Your task to perform on an android device: check out phone information Image 0: 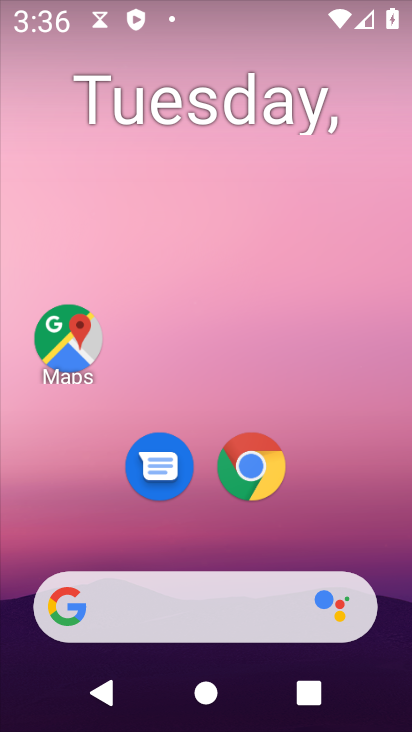
Step 0: drag from (395, 628) to (245, 16)
Your task to perform on an android device: check out phone information Image 1: 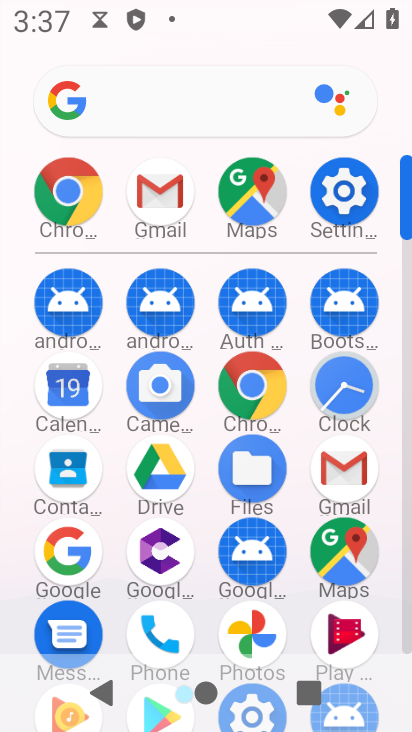
Step 1: drag from (7, 545) to (0, 229)
Your task to perform on an android device: check out phone information Image 2: 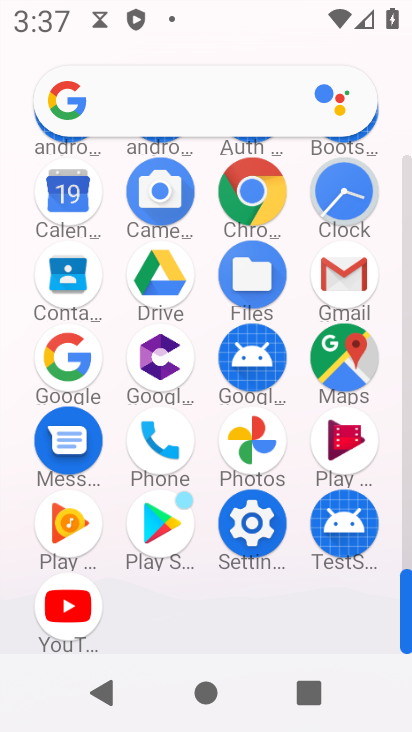
Step 2: click (251, 523)
Your task to perform on an android device: check out phone information Image 3: 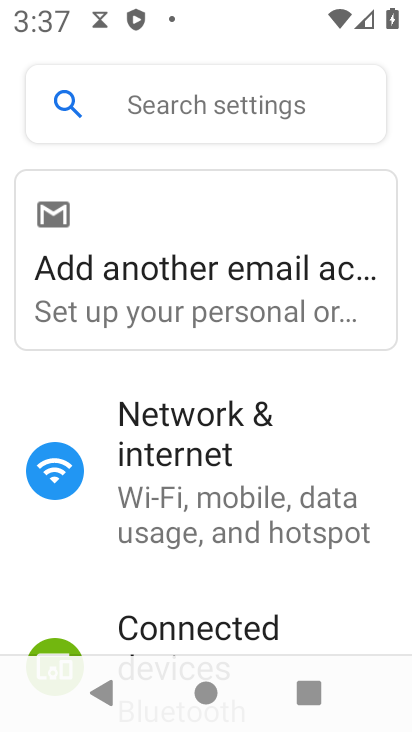
Step 3: drag from (228, 347) to (211, 102)
Your task to perform on an android device: check out phone information Image 4: 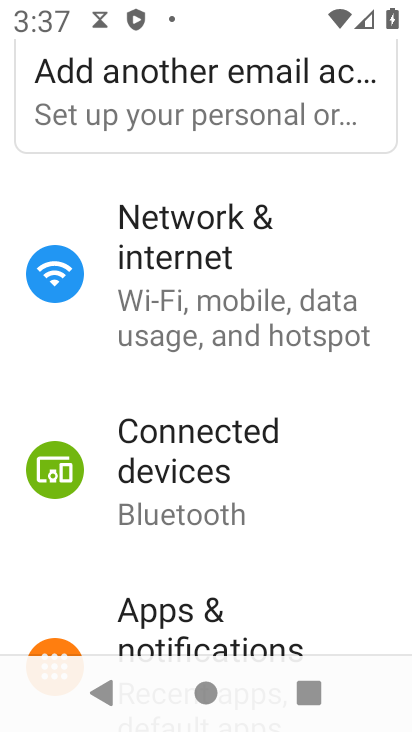
Step 4: drag from (367, 522) to (301, 104)
Your task to perform on an android device: check out phone information Image 5: 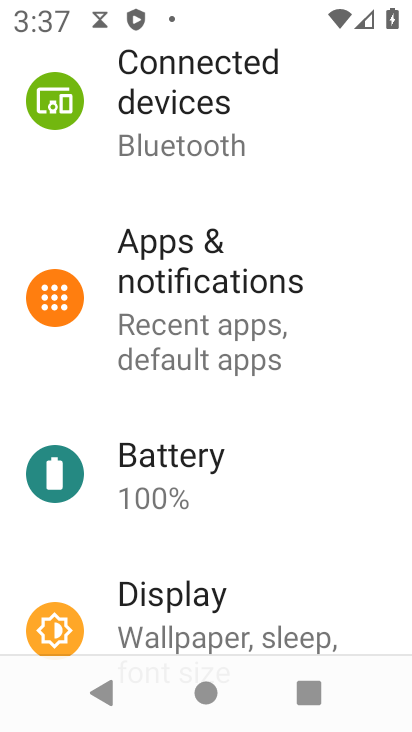
Step 5: drag from (314, 476) to (269, 98)
Your task to perform on an android device: check out phone information Image 6: 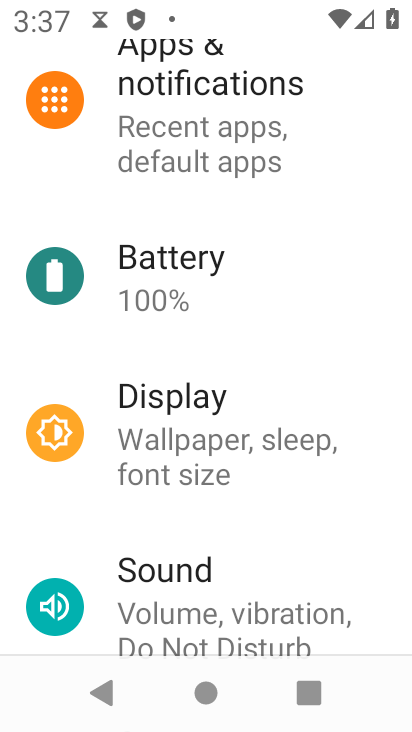
Step 6: drag from (235, 564) to (247, 216)
Your task to perform on an android device: check out phone information Image 7: 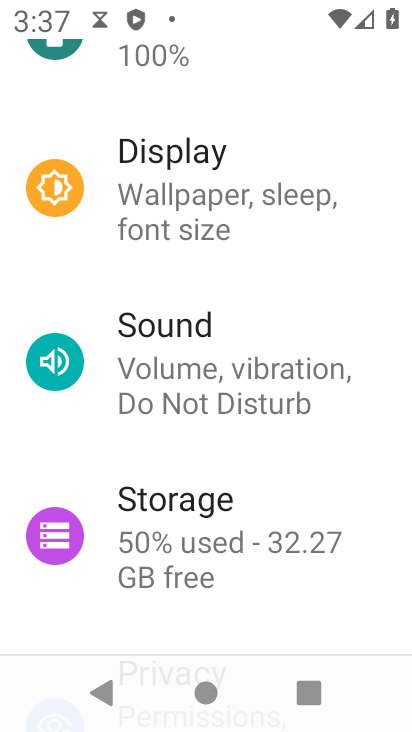
Step 7: drag from (339, 541) to (334, 93)
Your task to perform on an android device: check out phone information Image 8: 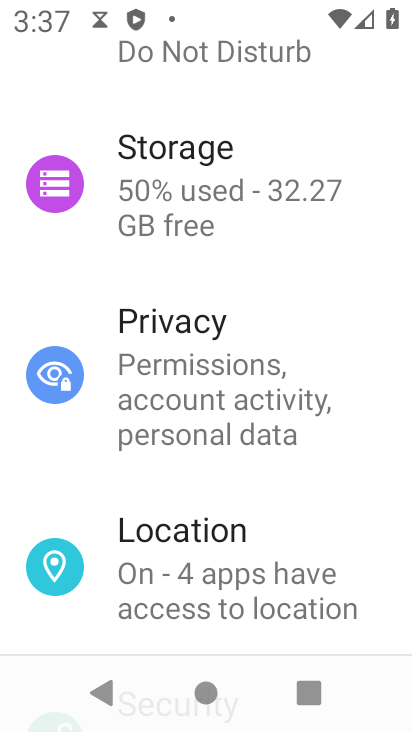
Step 8: drag from (305, 615) to (283, 172)
Your task to perform on an android device: check out phone information Image 9: 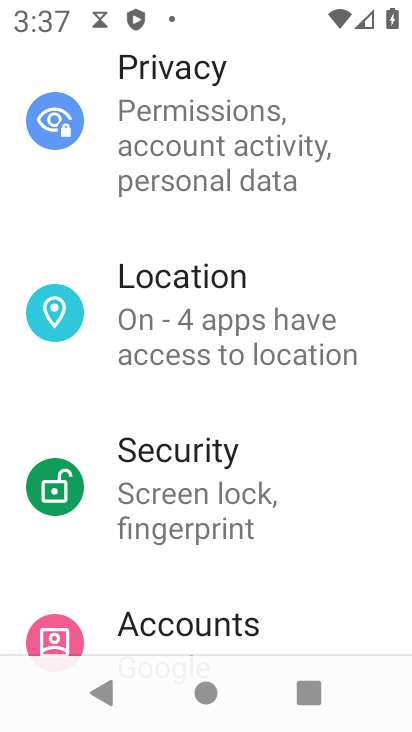
Step 9: drag from (293, 608) to (297, 177)
Your task to perform on an android device: check out phone information Image 10: 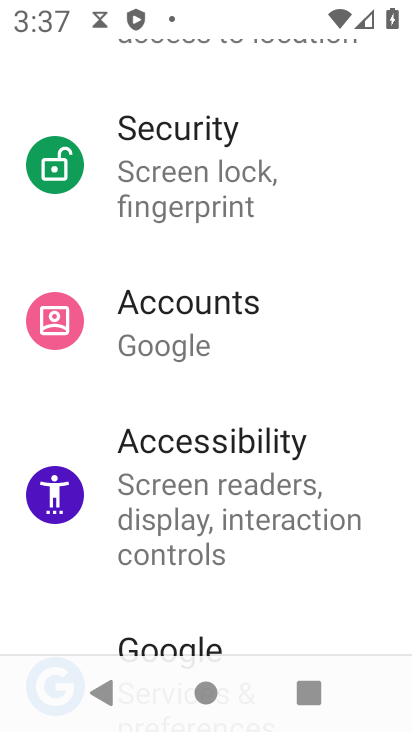
Step 10: drag from (276, 431) to (261, 74)
Your task to perform on an android device: check out phone information Image 11: 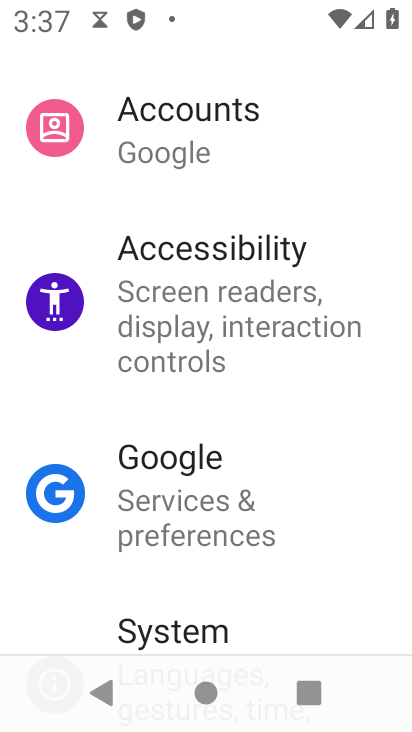
Step 11: drag from (278, 485) to (266, 113)
Your task to perform on an android device: check out phone information Image 12: 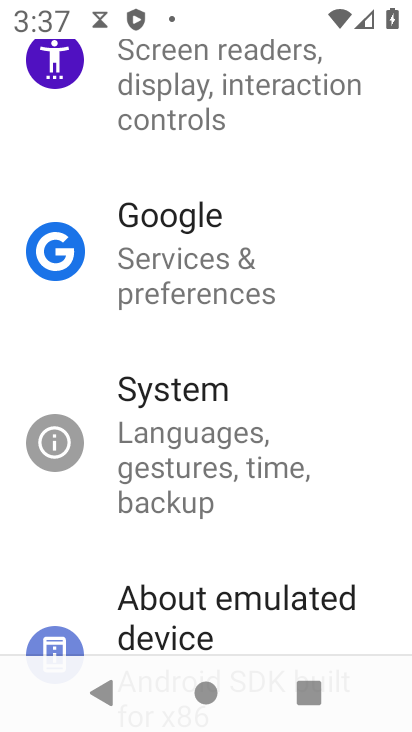
Step 12: drag from (280, 454) to (279, 142)
Your task to perform on an android device: check out phone information Image 13: 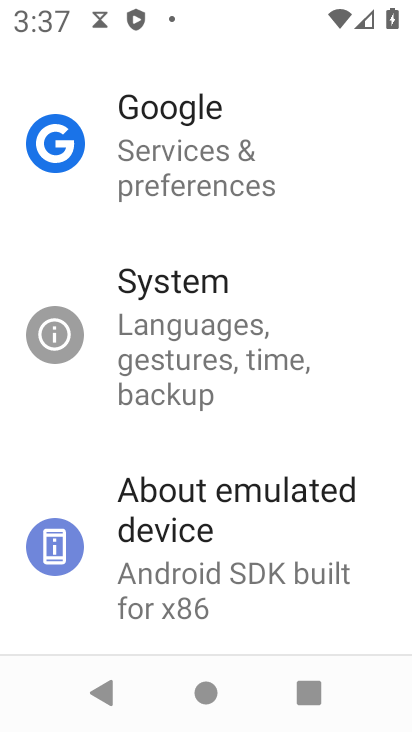
Step 13: click (263, 514)
Your task to perform on an android device: check out phone information Image 14: 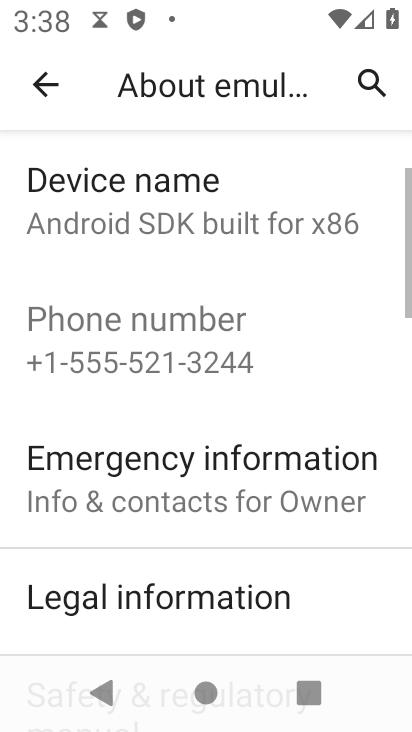
Step 14: drag from (270, 494) to (268, 140)
Your task to perform on an android device: check out phone information Image 15: 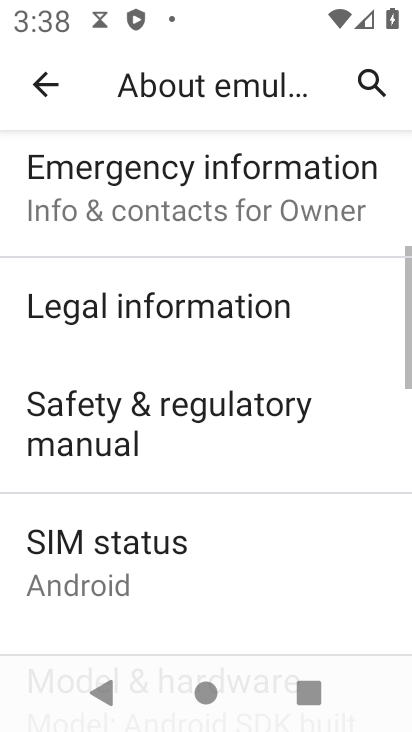
Step 15: drag from (286, 416) to (271, 170)
Your task to perform on an android device: check out phone information Image 16: 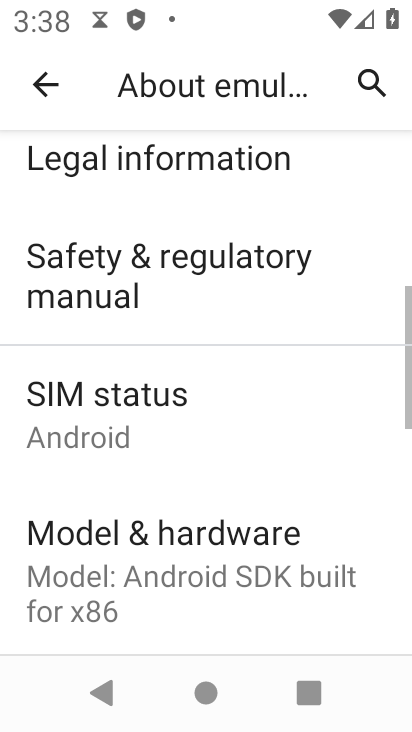
Step 16: drag from (266, 521) to (261, 142)
Your task to perform on an android device: check out phone information Image 17: 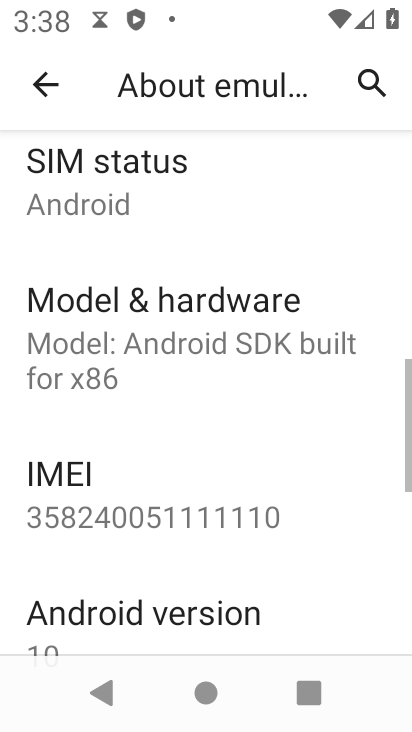
Step 17: drag from (268, 444) to (267, 182)
Your task to perform on an android device: check out phone information Image 18: 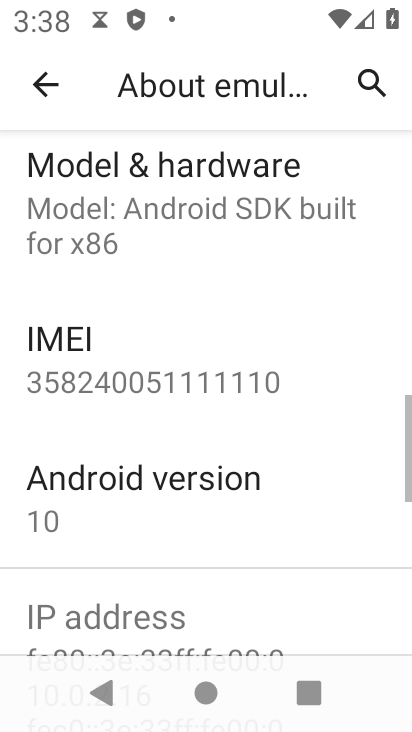
Step 18: drag from (285, 505) to (282, 216)
Your task to perform on an android device: check out phone information Image 19: 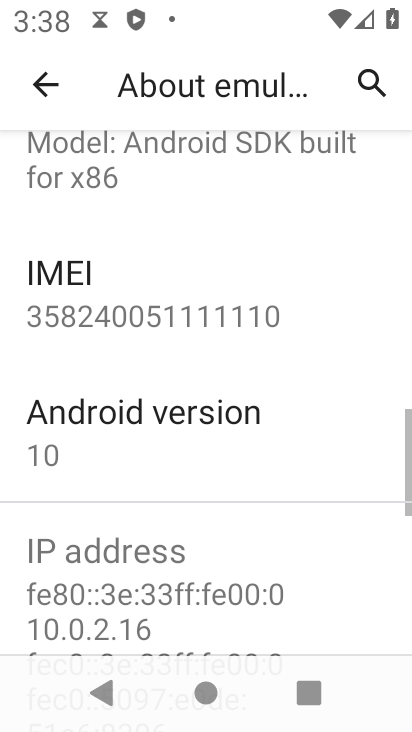
Step 19: drag from (255, 503) to (258, 200)
Your task to perform on an android device: check out phone information Image 20: 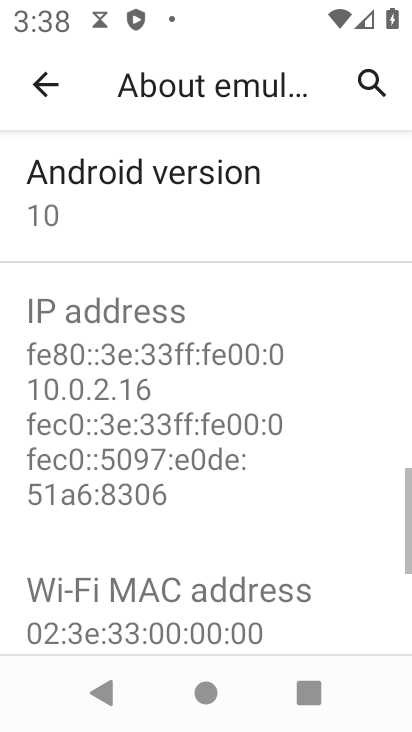
Step 20: drag from (295, 320) to (292, 576)
Your task to perform on an android device: check out phone information Image 21: 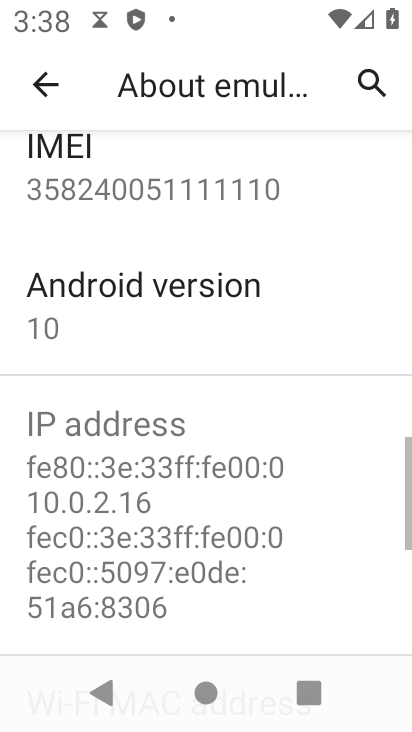
Step 21: drag from (308, 213) to (288, 572)
Your task to perform on an android device: check out phone information Image 22: 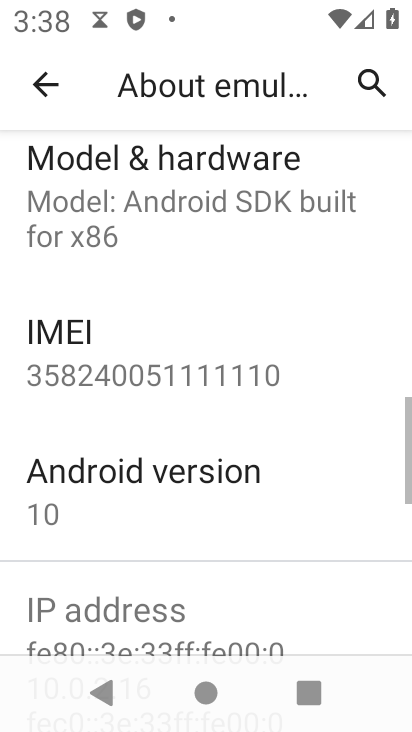
Step 22: drag from (292, 219) to (290, 612)
Your task to perform on an android device: check out phone information Image 23: 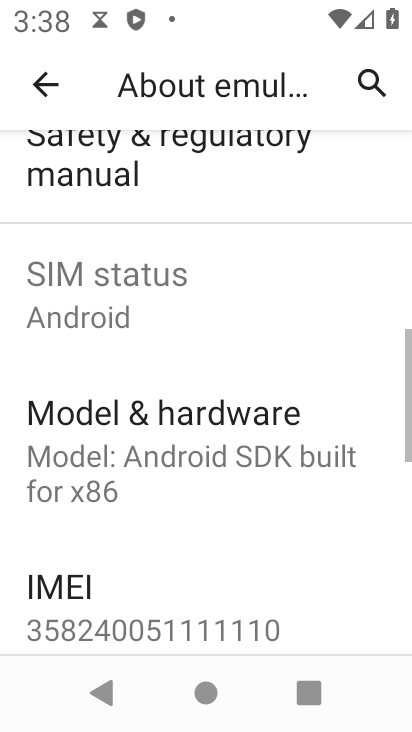
Step 23: drag from (312, 202) to (304, 492)
Your task to perform on an android device: check out phone information Image 24: 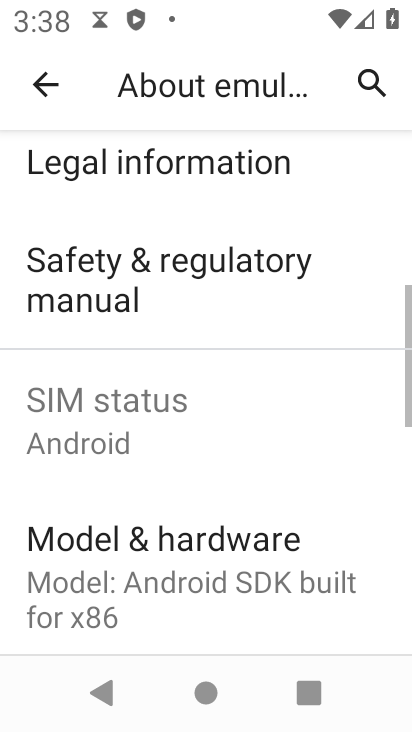
Step 24: drag from (296, 218) to (300, 572)
Your task to perform on an android device: check out phone information Image 25: 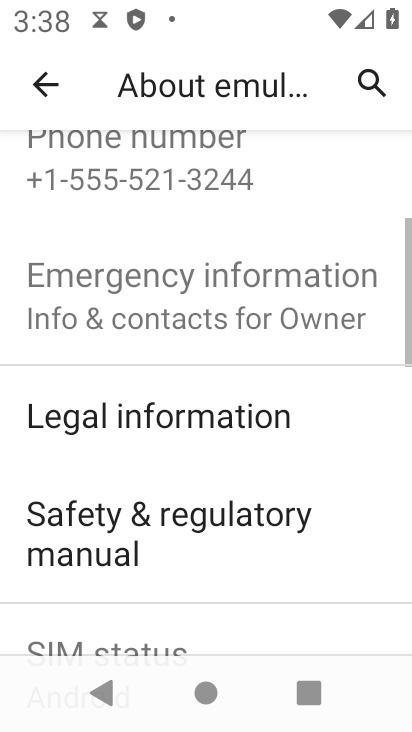
Step 25: drag from (292, 275) to (288, 595)
Your task to perform on an android device: check out phone information Image 26: 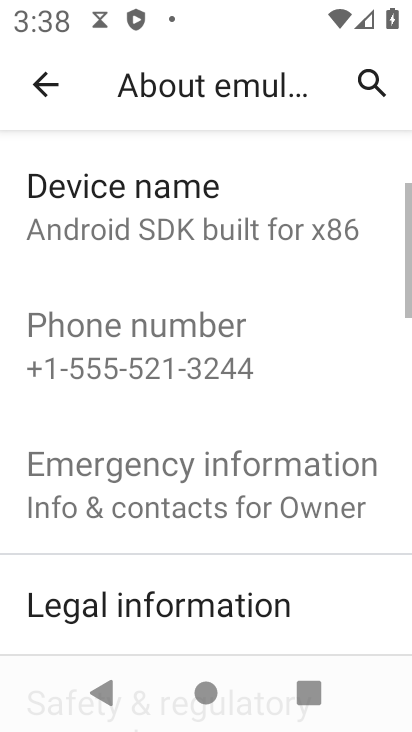
Step 26: drag from (282, 260) to (276, 642)
Your task to perform on an android device: check out phone information Image 27: 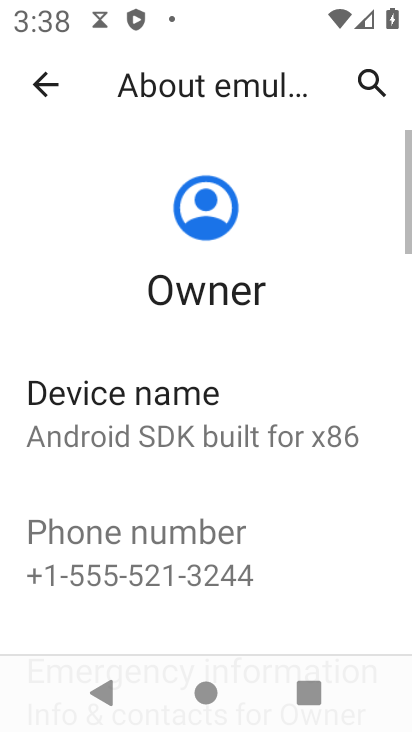
Step 27: click (55, 86)
Your task to perform on an android device: check out phone information Image 28: 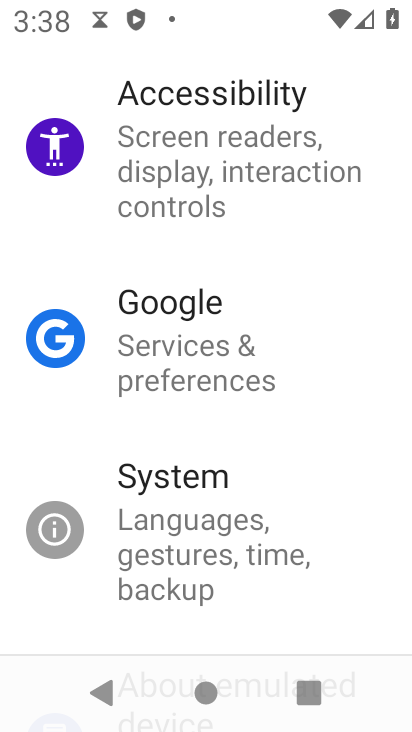
Step 28: drag from (245, 472) to (283, 122)
Your task to perform on an android device: check out phone information Image 29: 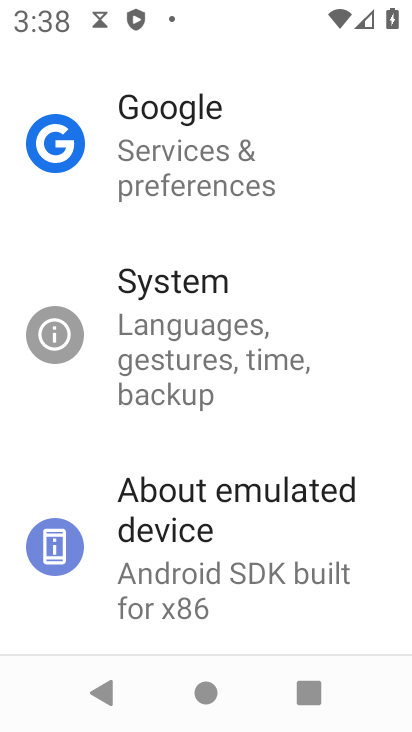
Step 29: drag from (232, 452) to (234, 185)
Your task to perform on an android device: check out phone information Image 30: 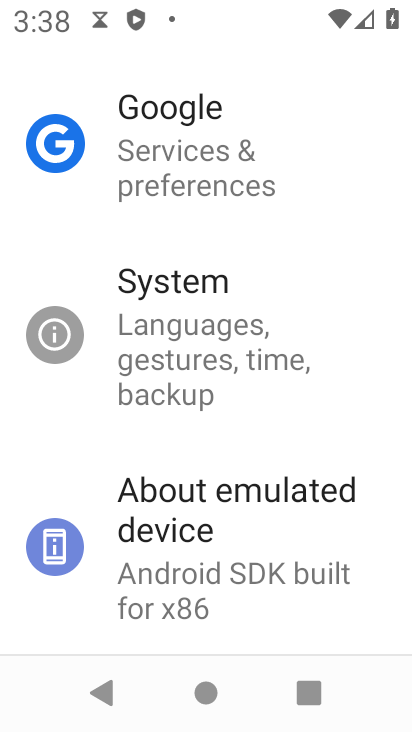
Step 30: drag from (226, 489) to (237, 222)
Your task to perform on an android device: check out phone information Image 31: 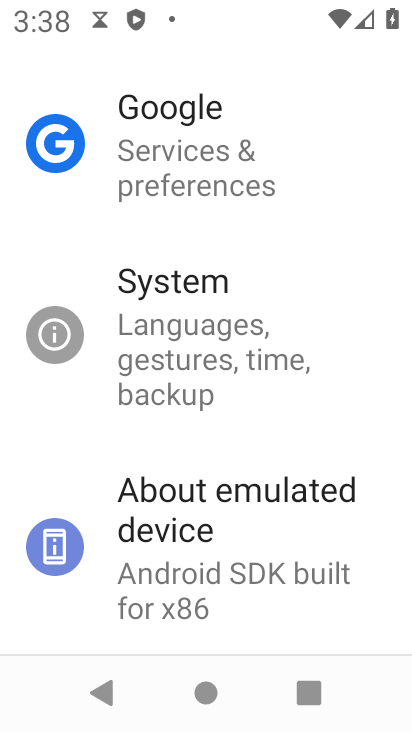
Step 31: drag from (293, 517) to (267, 279)
Your task to perform on an android device: check out phone information Image 32: 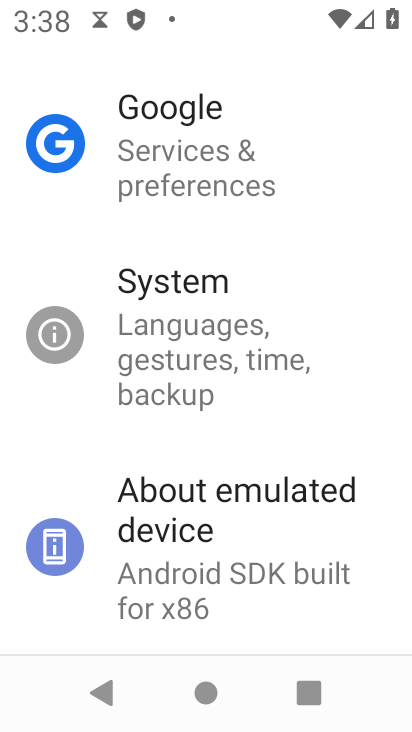
Step 32: drag from (254, 536) to (285, 170)
Your task to perform on an android device: check out phone information Image 33: 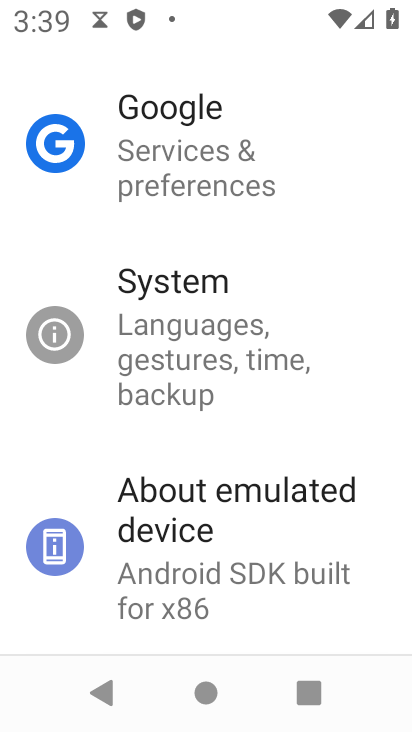
Step 33: drag from (278, 131) to (264, 517)
Your task to perform on an android device: check out phone information Image 34: 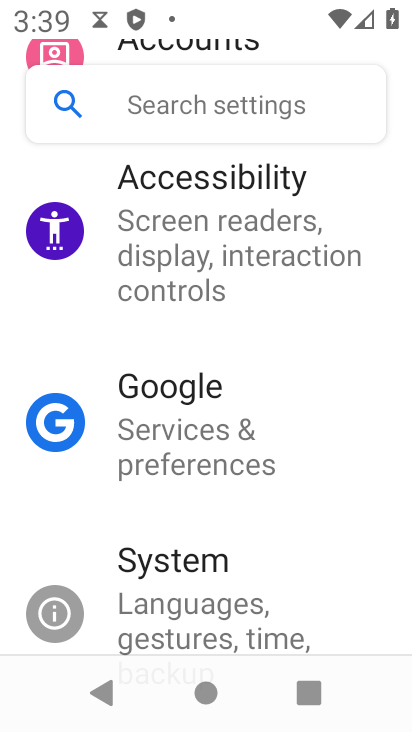
Step 34: click (257, 202)
Your task to perform on an android device: check out phone information Image 35: 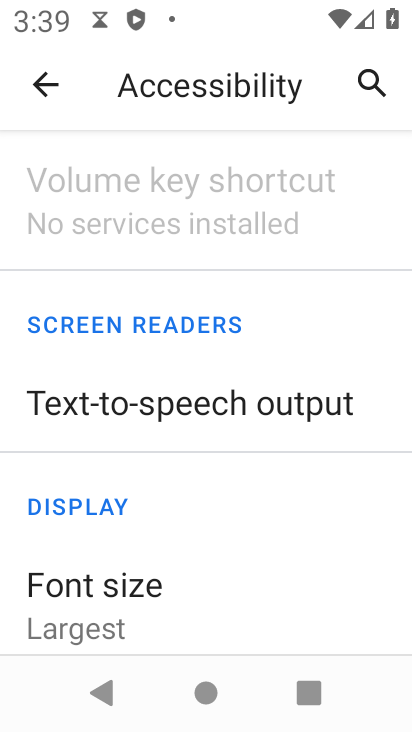
Step 35: click (55, 88)
Your task to perform on an android device: check out phone information Image 36: 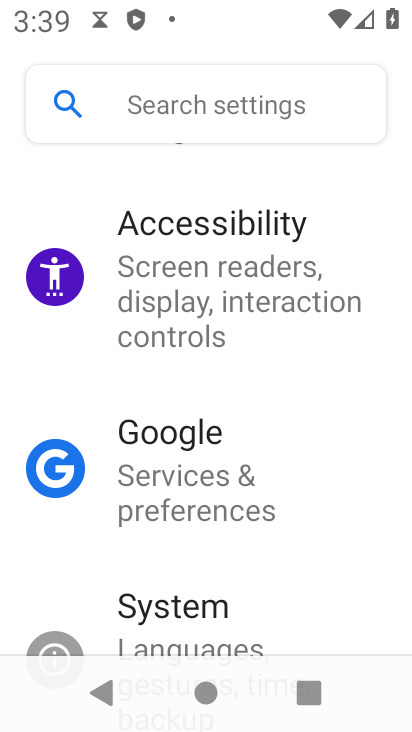
Step 36: task complete